Your task to perform on an android device: all mails in gmail Image 0: 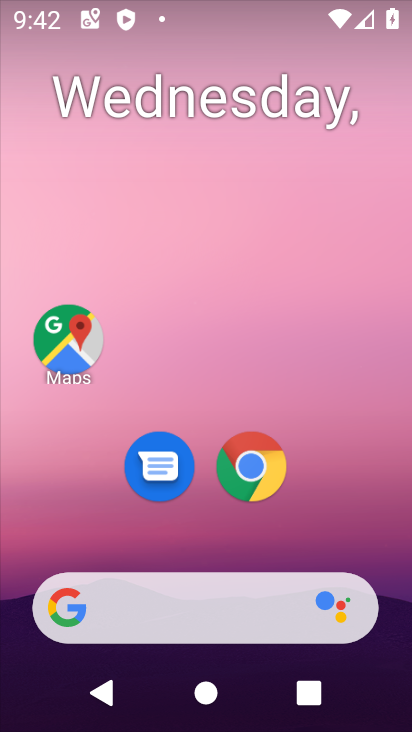
Step 0: drag from (319, 528) to (146, 137)
Your task to perform on an android device: all mails in gmail Image 1: 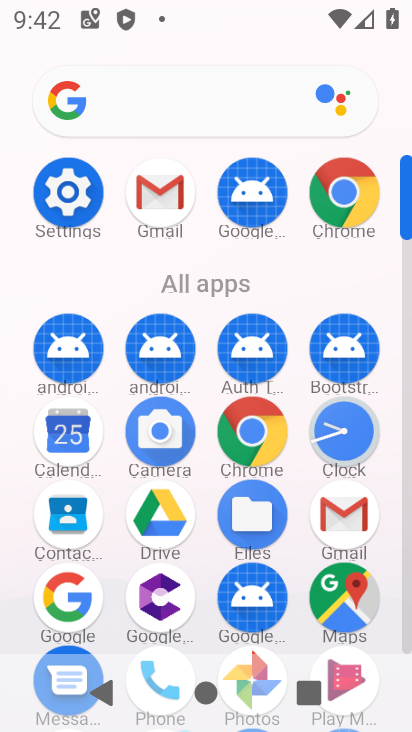
Step 1: click (161, 196)
Your task to perform on an android device: all mails in gmail Image 2: 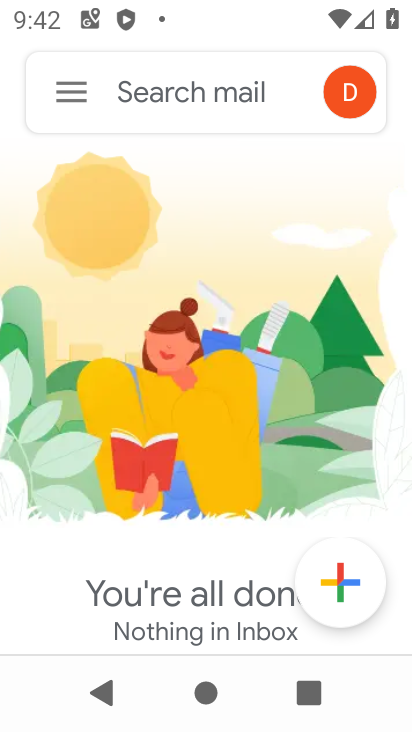
Step 2: click (70, 89)
Your task to perform on an android device: all mails in gmail Image 3: 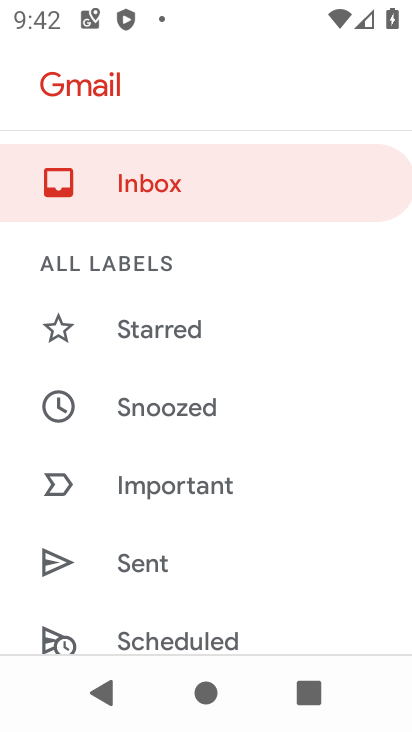
Step 3: drag from (270, 575) to (238, 375)
Your task to perform on an android device: all mails in gmail Image 4: 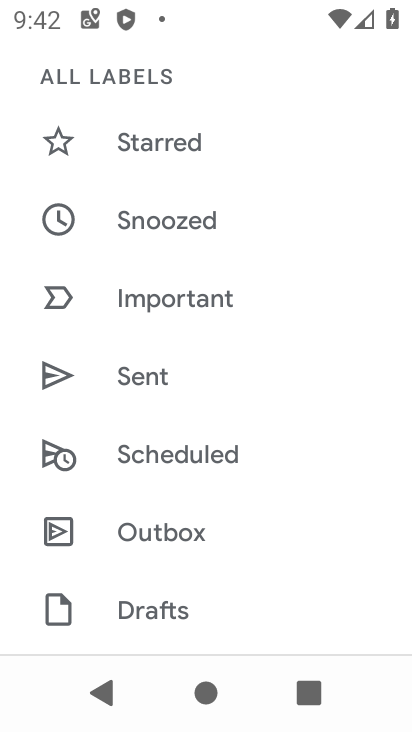
Step 4: drag from (257, 540) to (264, 336)
Your task to perform on an android device: all mails in gmail Image 5: 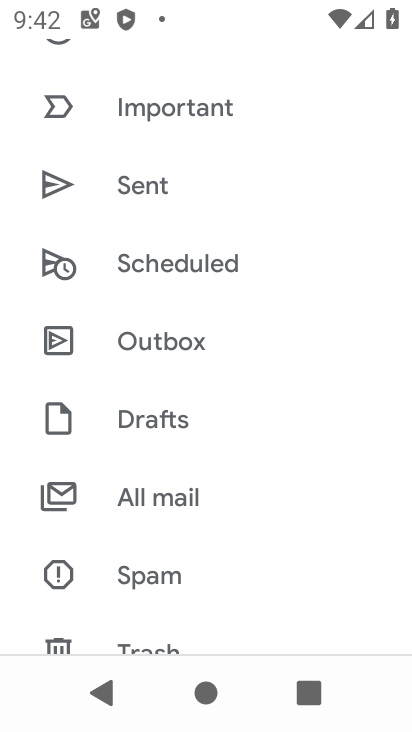
Step 5: click (140, 496)
Your task to perform on an android device: all mails in gmail Image 6: 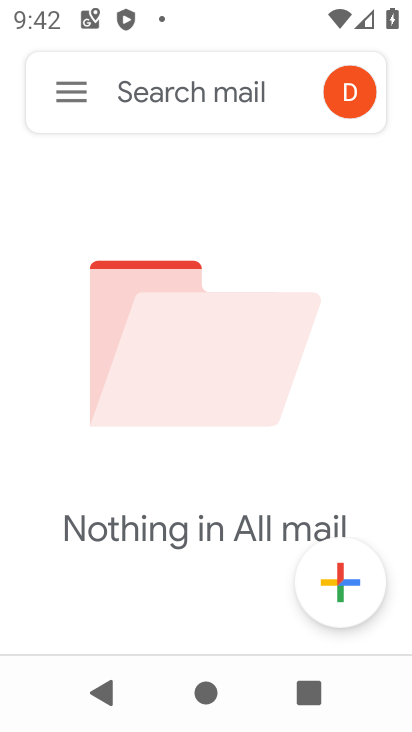
Step 6: task complete